Your task to perform on an android device: What's the weather? Image 0: 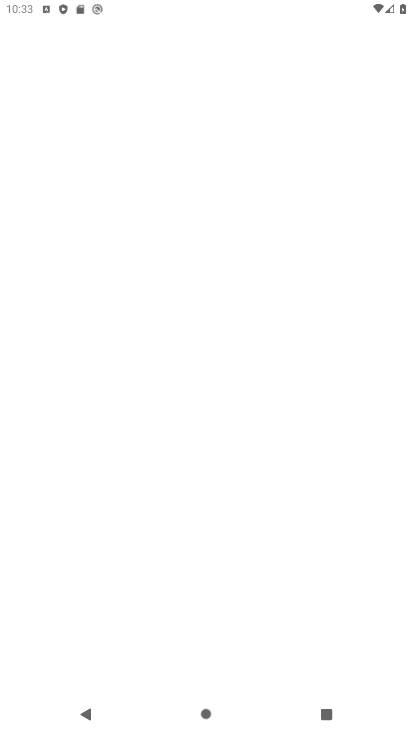
Step 0: press home button
Your task to perform on an android device: What's the weather? Image 1: 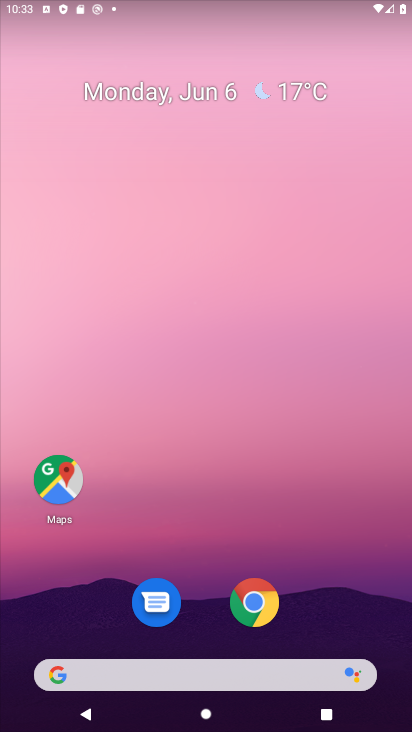
Step 1: drag from (227, 648) to (111, 5)
Your task to perform on an android device: What's the weather? Image 2: 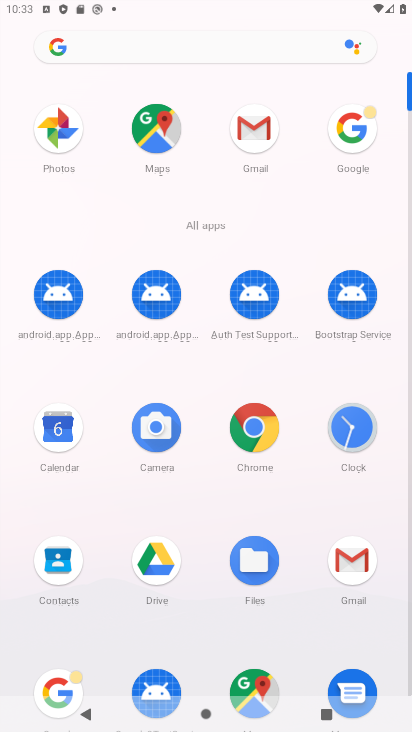
Step 2: click (53, 664)
Your task to perform on an android device: What's the weather? Image 3: 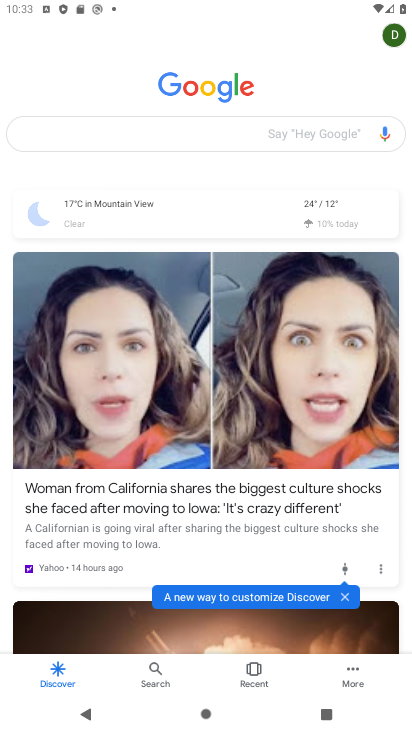
Step 3: click (186, 137)
Your task to perform on an android device: What's the weather? Image 4: 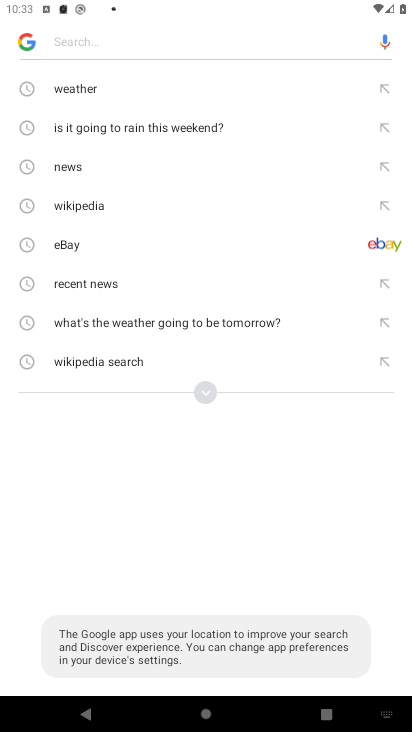
Step 4: click (181, 83)
Your task to perform on an android device: What's the weather? Image 5: 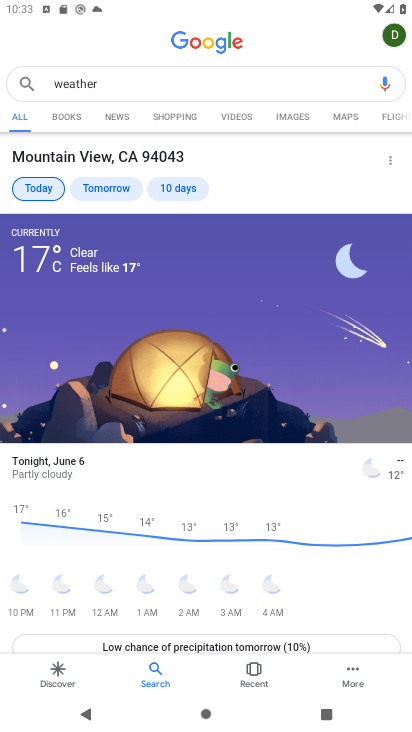
Step 5: task complete